Your task to perform on an android device: open device folders in google photos Image 0: 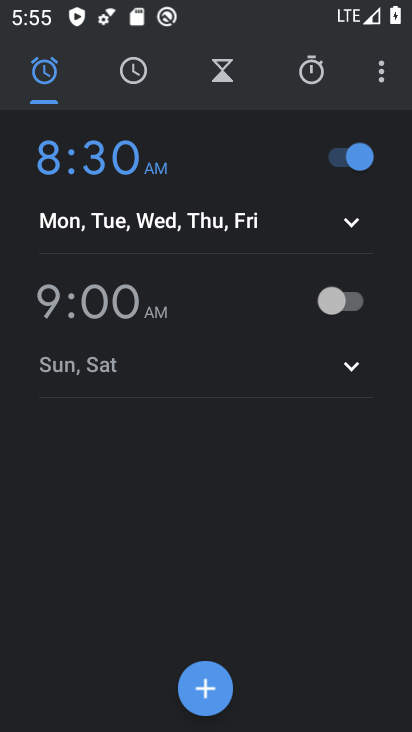
Step 0: press home button
Your task to perform on an android device: open device folders in google photos Image 1: 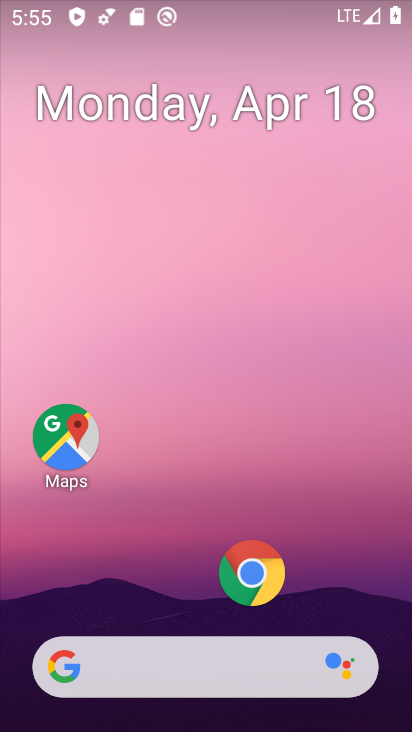
Step 1: drag from (183, 601) to (295, 0)
Your task to perform on an android device: open device folders in google photos Image 2: 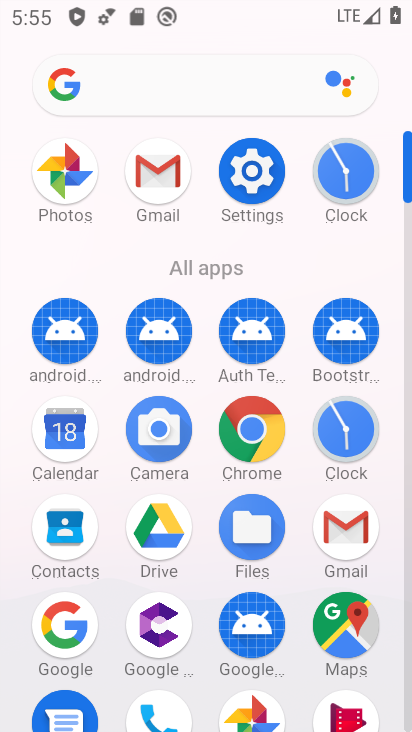
Step 2: drag from (208, 572) to (241, 49)
Your task to perform on an android device: open device folders in google photos Image 3: 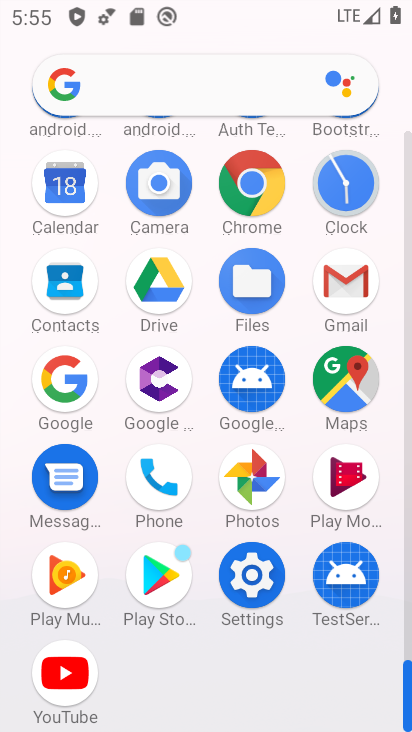
Step 3: click (250, 491)
Your task to perform on an android device: open device folders in google photos Image 4: 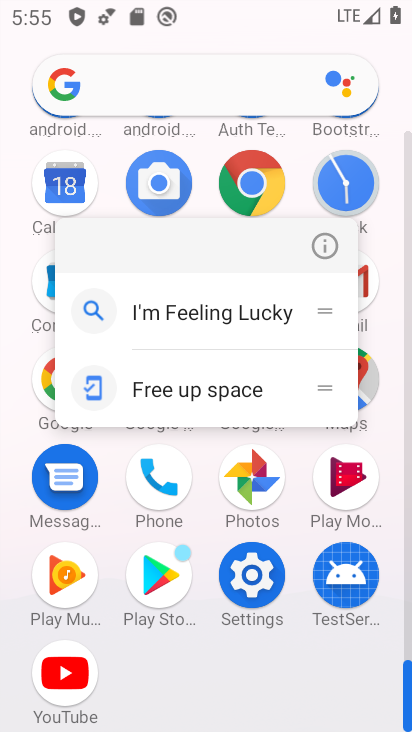
Step 4: click (247, 495)
Your task to perform on an android device: open device folders in google photos Image 5: 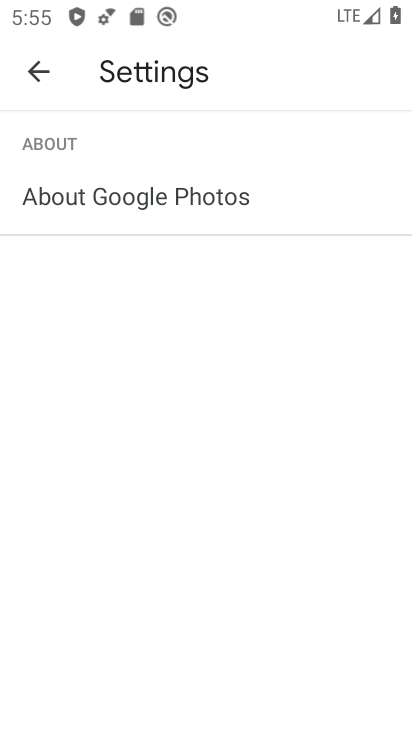
Step 5: click (38, 69)
Your task to perform on an android device: open device folders in google photos Image 6: 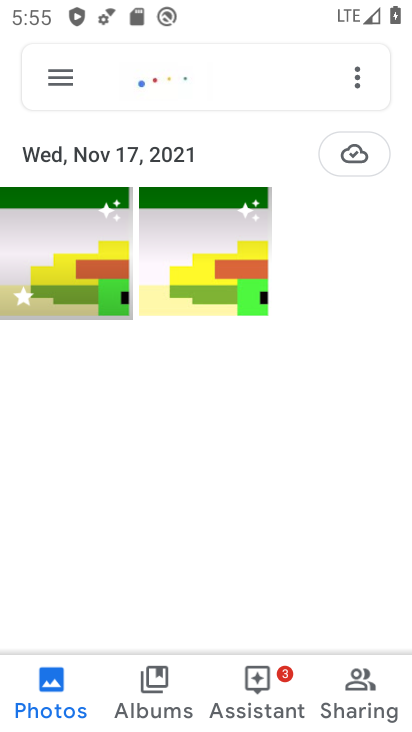
Step 6: click (57, 76)
Your task to perform on an android device: open device folders in google photos Image 7: 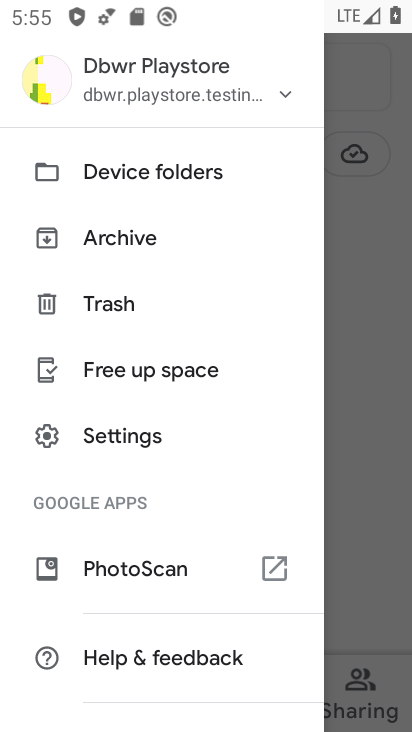
Step 7: click (143, 169)
Your task to perform on an android device: open device folders in google photos Image 8: 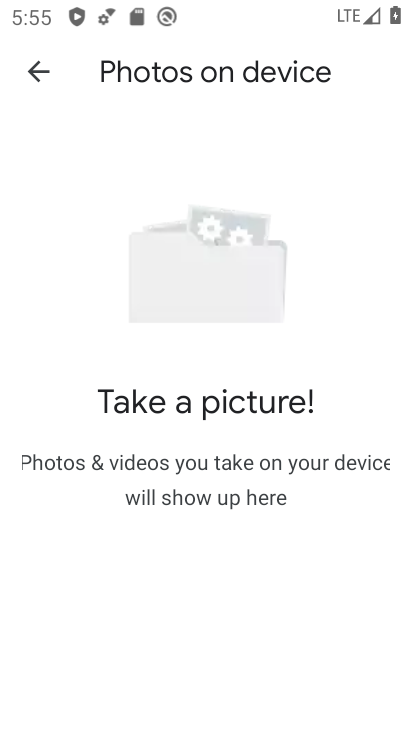
Step 8: task complete